Your task to perform on an android device: change the clock display to show seconds Image 0: 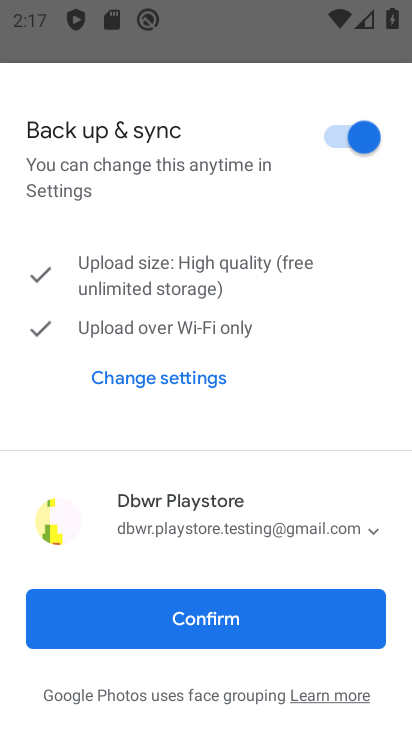
Step 0: press home button
Your task to perform on an android device: change the clock display to show seconds Image 1: 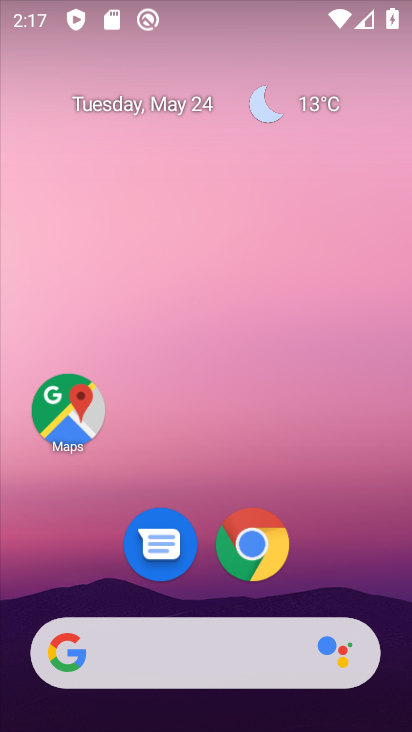
Step 1: drag from (354, 540) to (390, 137)
Your task to perform on an android device: change the clock display to show seconds Image 2: 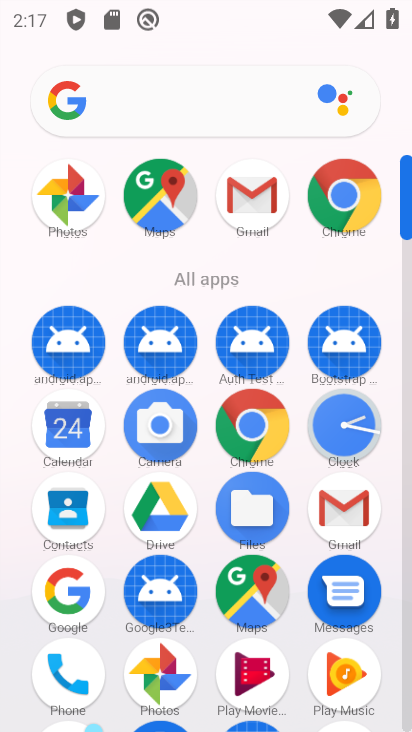
Step 2: click (360, 441)
Your task to perform on an android device: change the clock display to show seconds Image 3: 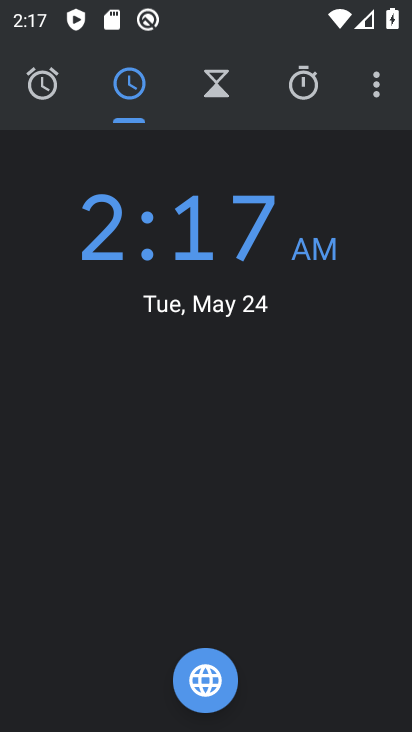
Step 3: click (377, 82)
Your task to perform on an android device: change the clock display to show seconds Image 4: 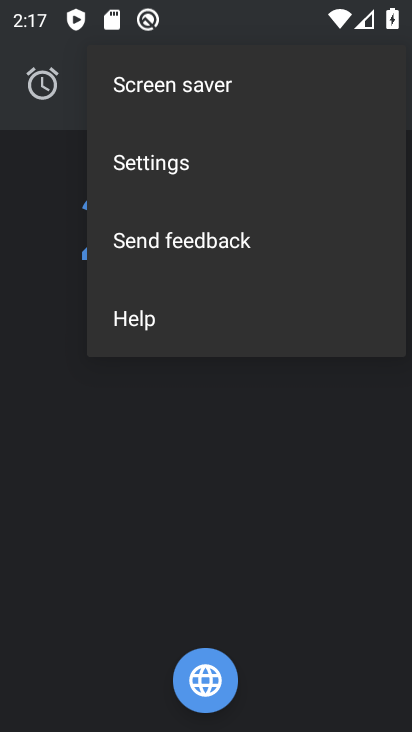
Step 4: click (164, 178)
Your task to perform on an android device: change the clock display to show seconds Image 5: 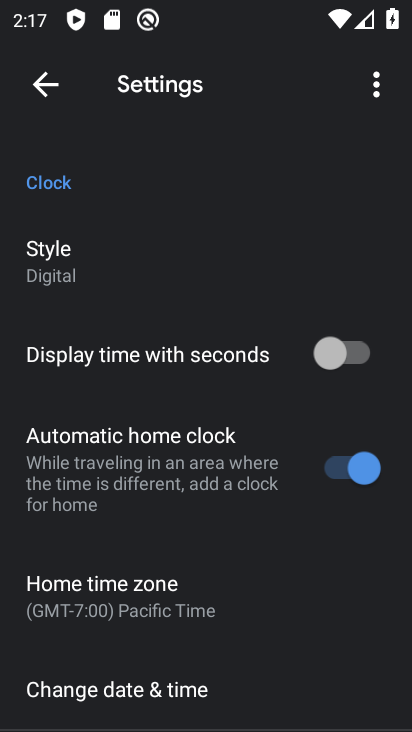
Step 5: drag from (172, 636) to (256, 275)
Your task to perform on an android device: change the clock display to show seconds Image 6: 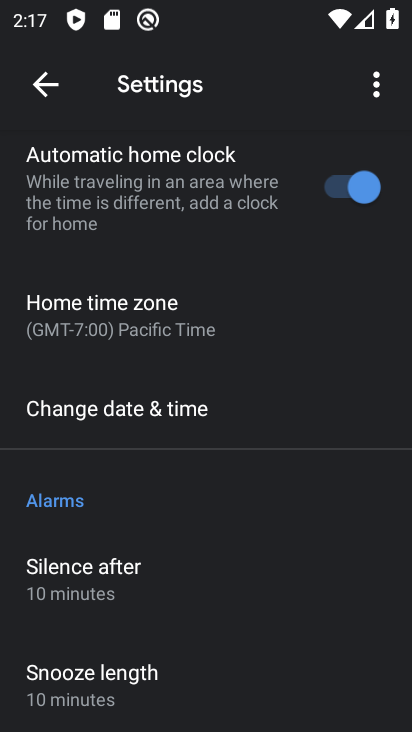
Step 6: drag from (257, 282) to (180, 614)
Your task to perform on an android device: change the clock display to show seconds Image 7: 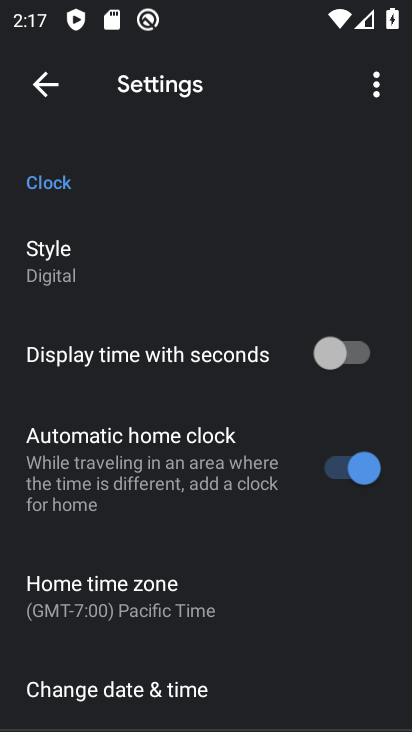
Step 7: click (315, 375)
Your task to perform on an android device: change the clock display to show seconds Image 8: 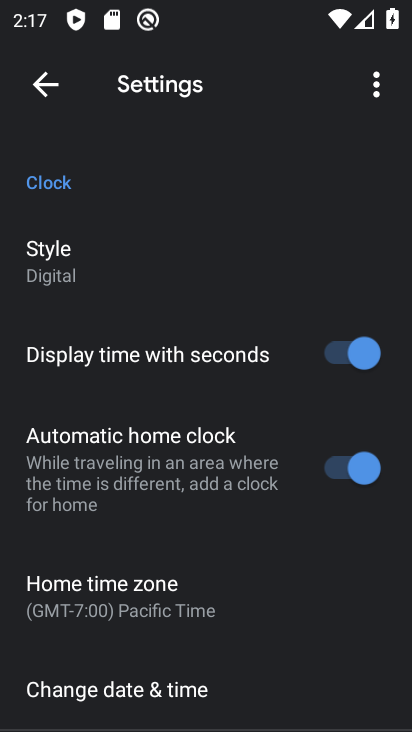
Step 8: task complete